Your task to perform on an android device: Open settings on Google Maps Image 0: 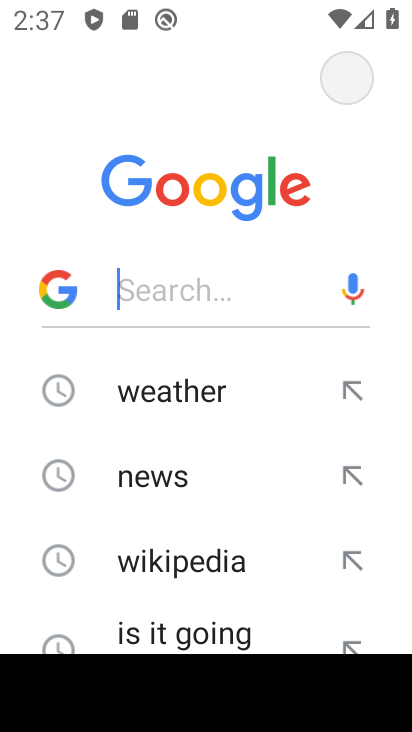
Step 0: press home button
Your task to perform on an android device: Open settings on Google Maps Image 1: 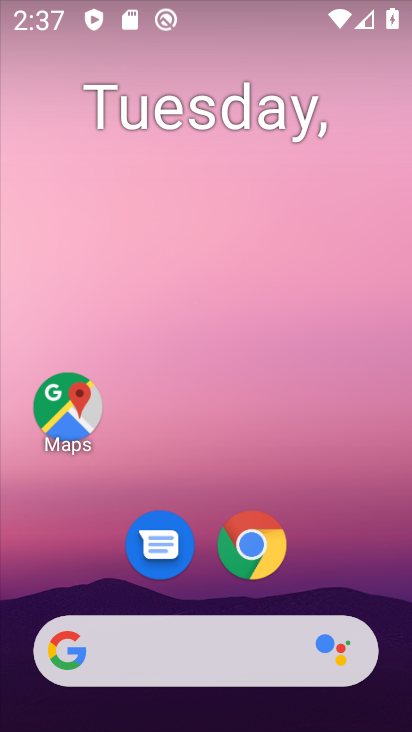
Step 1: click (40, 390)
Your task to perform on an android device: Open settings on Google Maps Image 2: 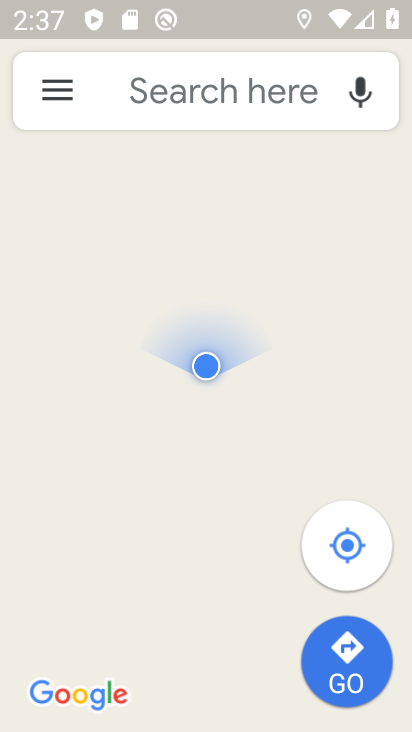
Step 2: click (54, 91)
Your task to perform on an android device: Open settings on Google Maps Image 3: 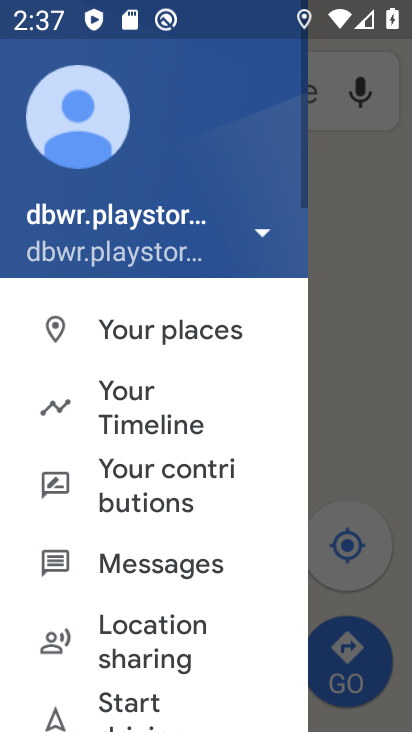
Step 3: drag from (171, 601) to (178, 177)
Your task to perform on an android device: Open settings on Google Maps Image 4: 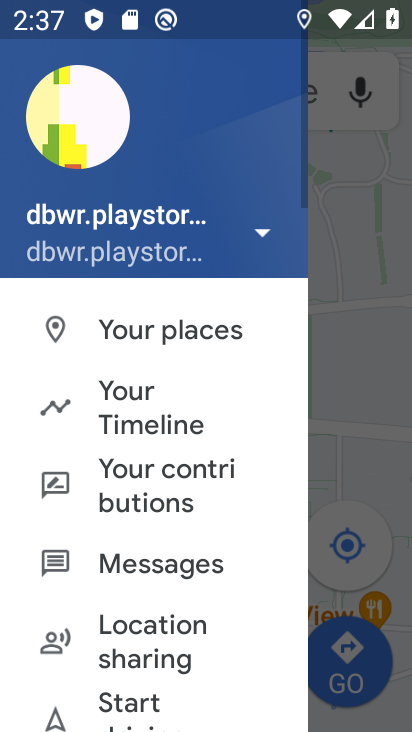
Step 4: drag from (148, 617) to (235, 67)
Your task to perform on an android device: Open settings on Google Maps Image 5: 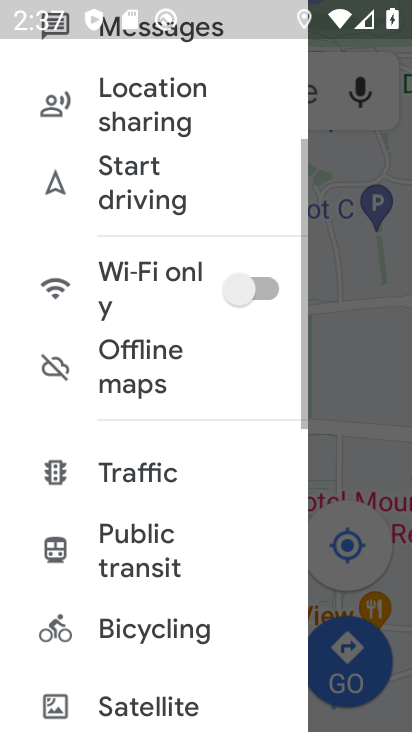
Step 5: drag from (167, 647) to (230, 87)
Your task to perform on an android device: Open settings on Google Maps Image 6: 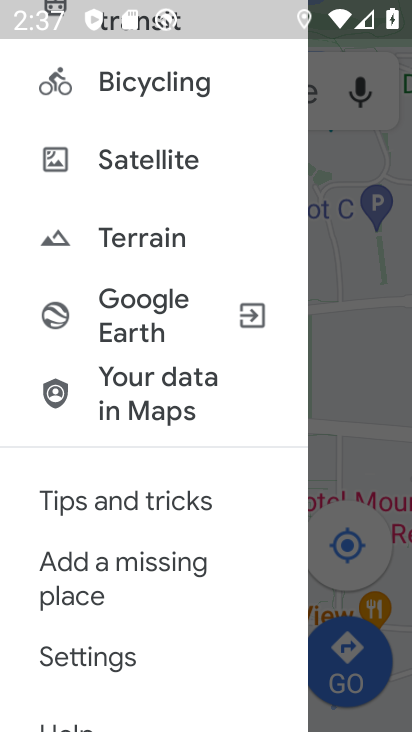
Step 6: click (136, 668)
Your task to perform on an android device: Open settings on Google Maps Image 7: 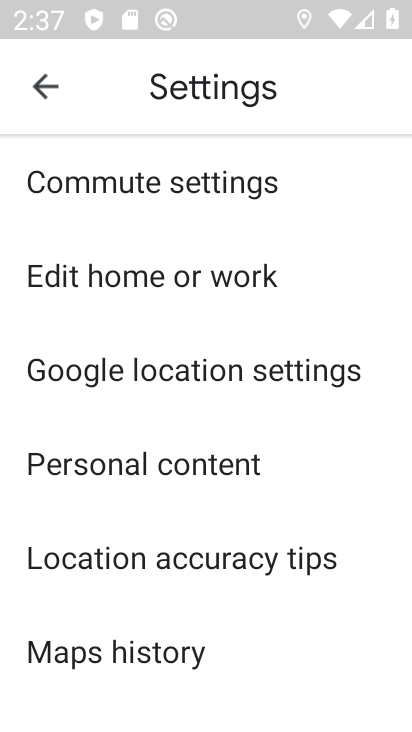
Step 7: task complete